Your task to perform on an android device: Open sound settings Image 0: 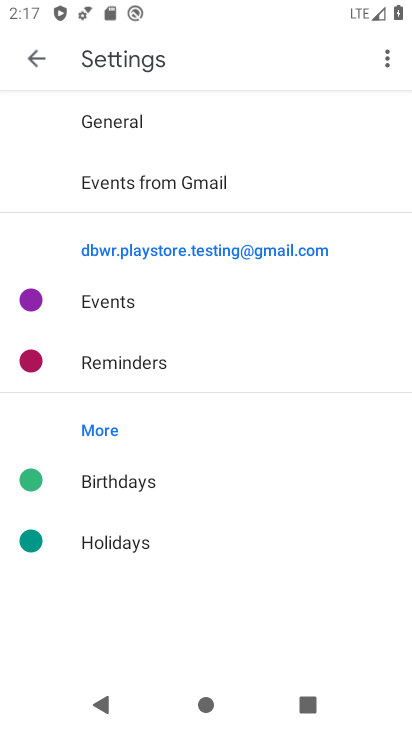
Step 0: press home button
Your task to perform on an android device: Open sound settings Image 1: 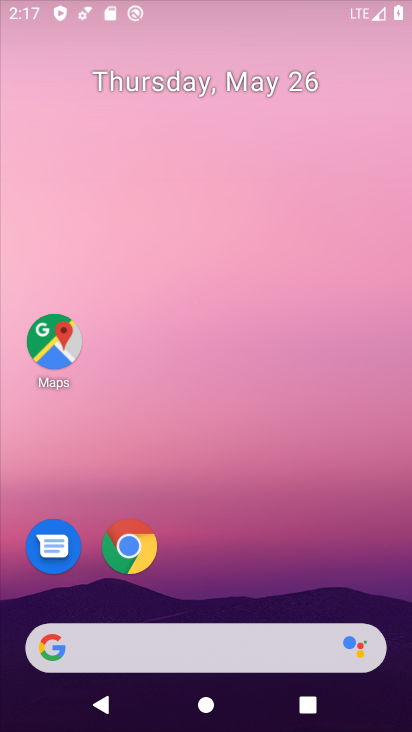
Step 1: drag from (285, 560) to (270, 13)
Your task to perform on an android device: Open sound settings Image 2: 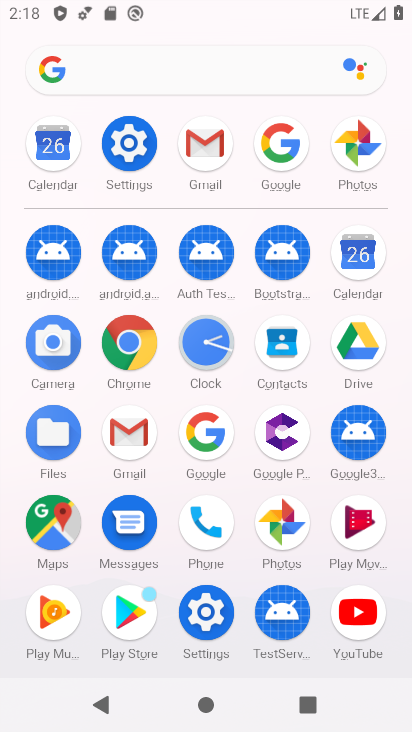
Step 2: click (133, 152)
Your task to perform on an android device: Open sound settings Image 3: 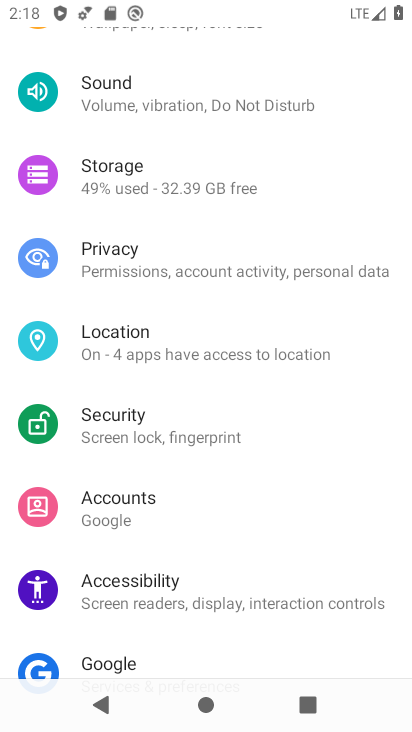
Step 3: click (164, 104)
Your task to perform on an android device: Open sound settings Image 4: 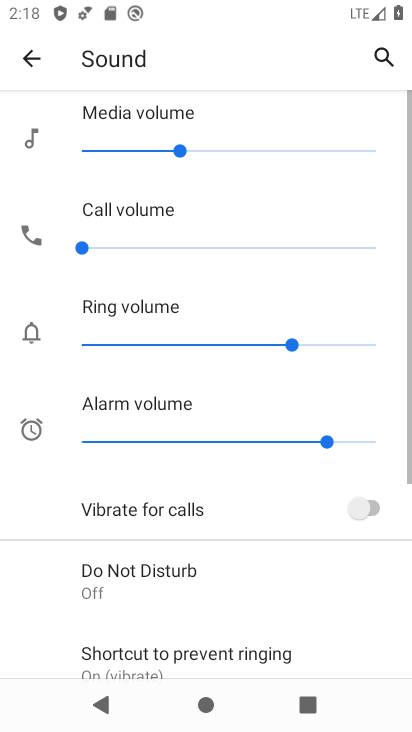
Step 4: task complete